Your task to perform on an android device: turn on wifi Image 0: 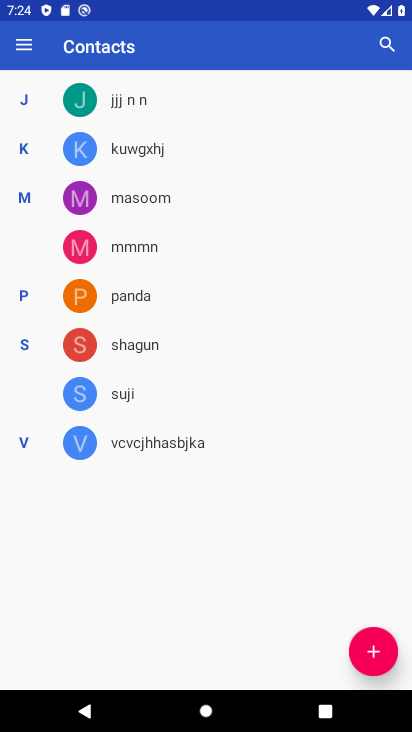
Step 0: press home button
Your task to perform on an android device: turn on wifi Image 1: 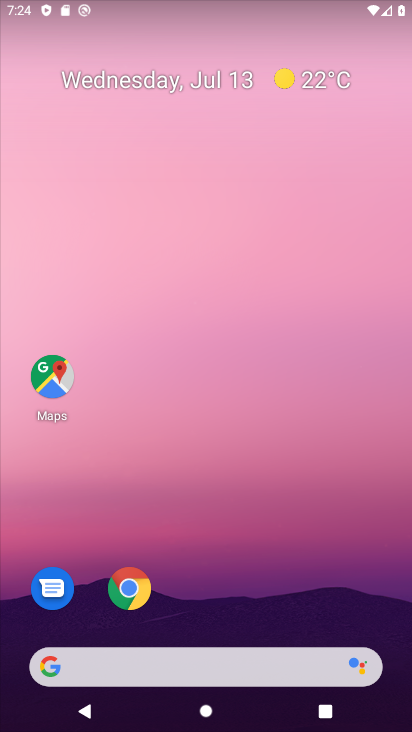
Step 1: drag from (296, 581) to (378, 45)
Your task to perform on an android device: turn on wifi Image 2: 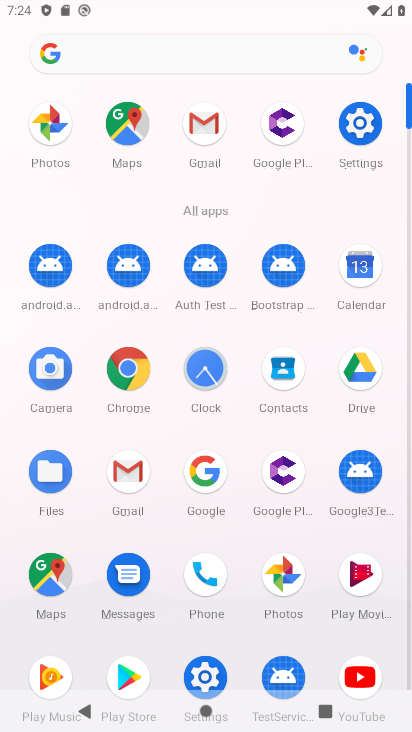
Step 2: click (365, 106)
Your task to perform on an android device: turn on wifi Image 3: 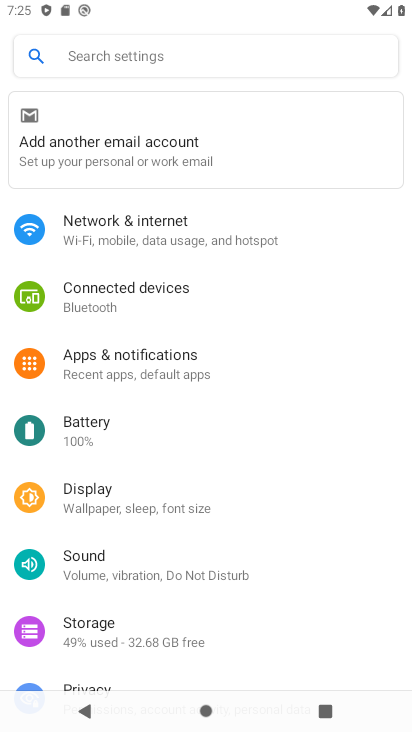
Step 3: click (109, 215)
Your task to perform on an android device: turn on wifi Image 4: 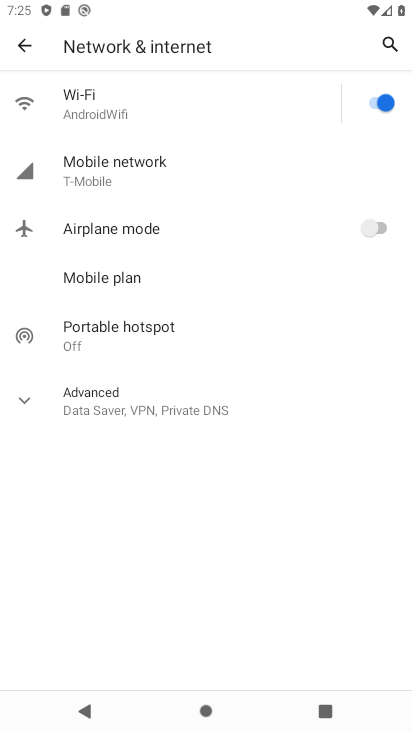
Step 4: task complete